Your task to perform on an android device: Open battery settings Image 0: 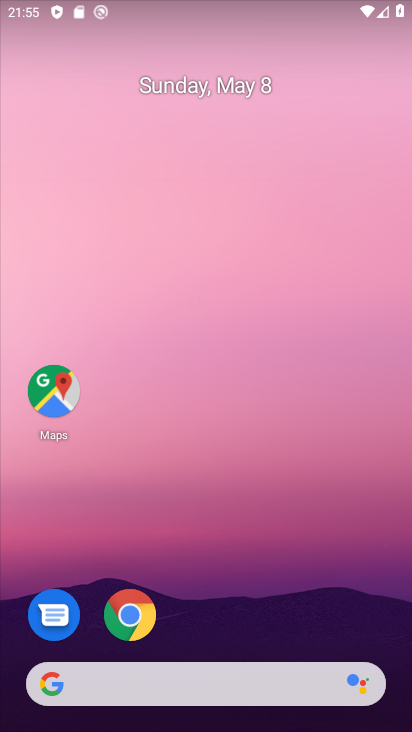
Step 0: drag from (370, 496) to (251, 7)
Your task to perform on an android device: Open battery settings Image 1: 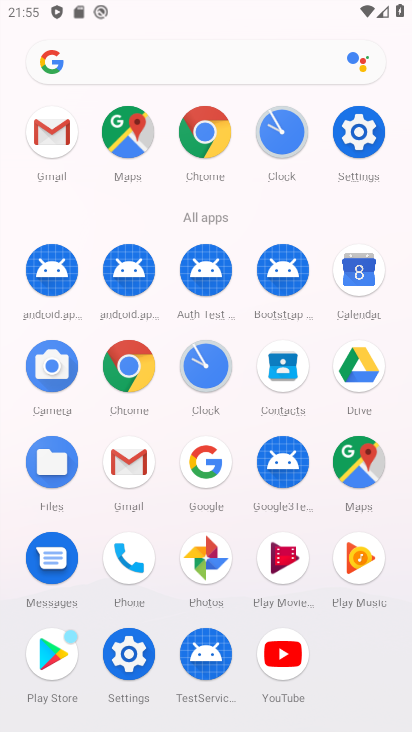
Step 1: click (352, 263)
Your task to perform on an android device: Open battery settings Image 2: 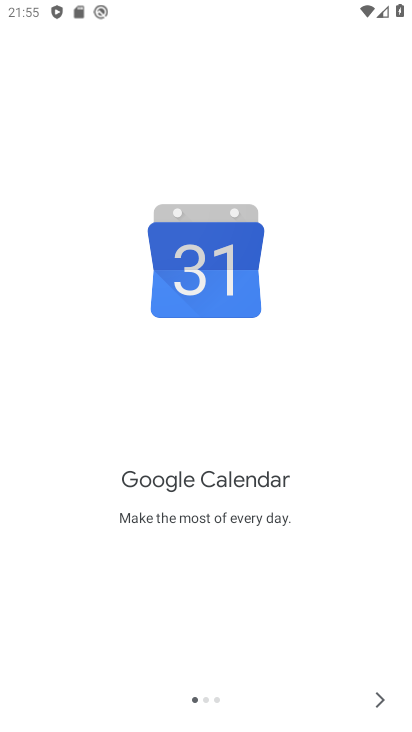
Step 2: press home button
Your task to perform on an android device: Open battery settings Image 3: 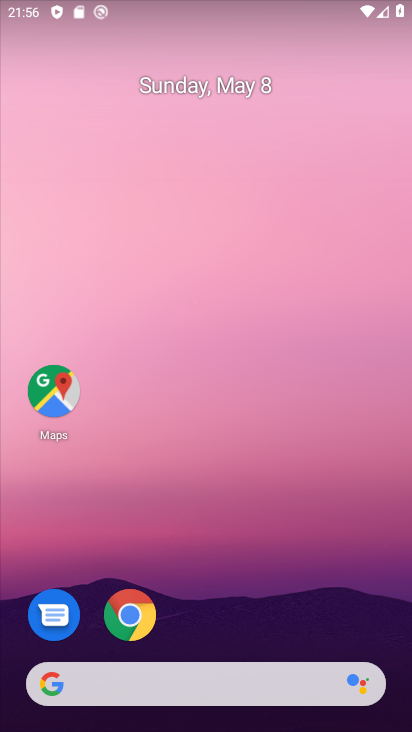
Step 3: drag from (199, 596) to (313, 9)
Your task to perform on an android device: Open battery settings Image 4: 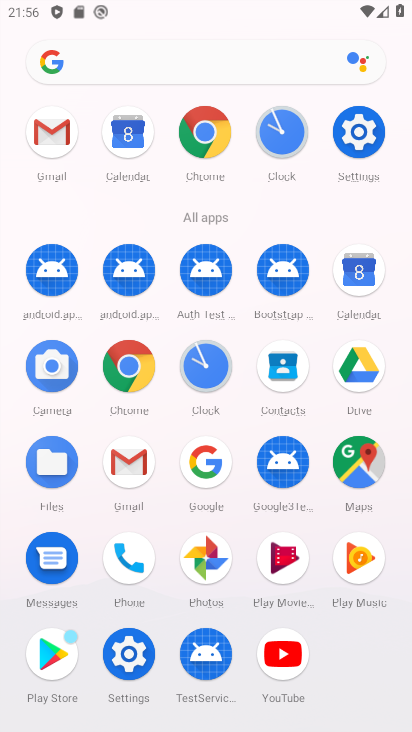
Step 4: click (371, 140)
Your task to perform on an android device: Open battery settings Image 5: 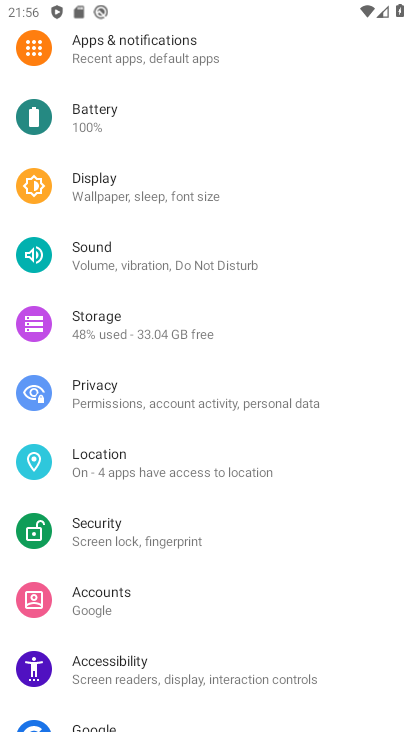
Step 5: click (146, 118)
Your task to perform on an android device: Open battery settings Image 6: 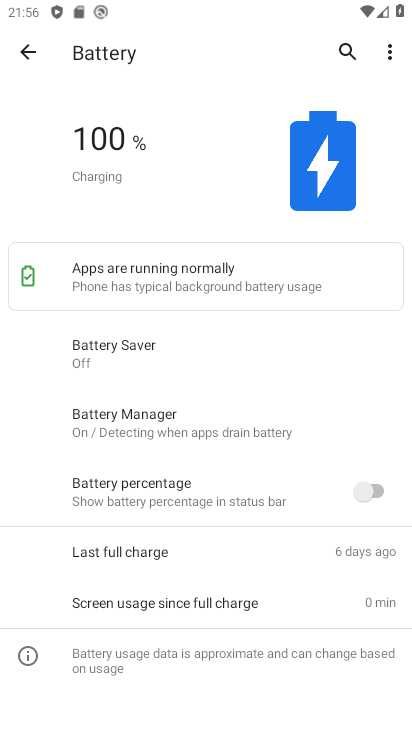
Step 6: task complete